Your task to perform on an android device: open app "Move to iOS" (install if not already installed) Image 0: 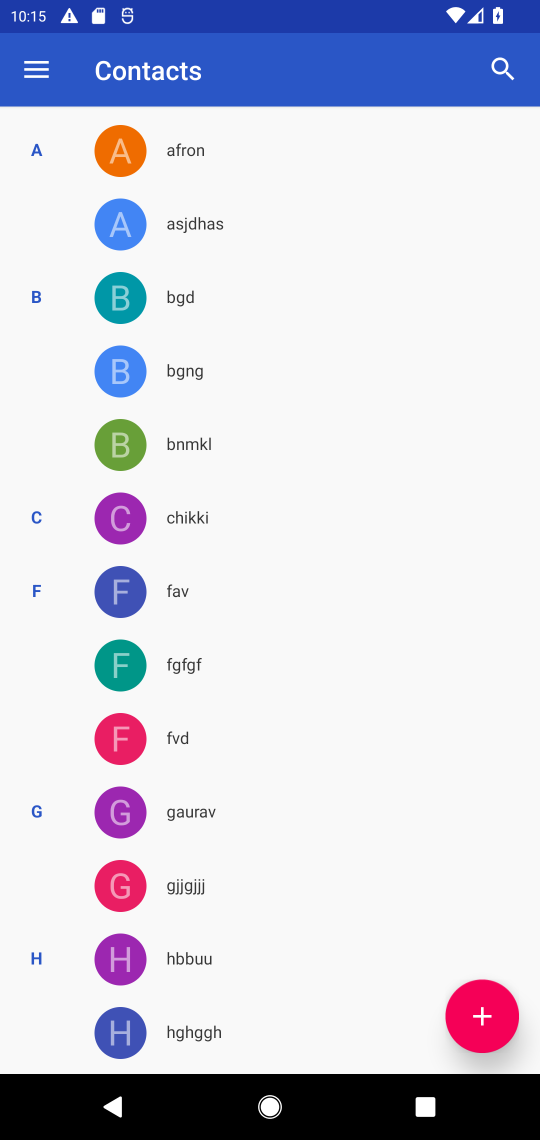
Step 0: press home button
Your task to perform on an android device: open app "Move to iOS" (install if not already installed) Image 1: 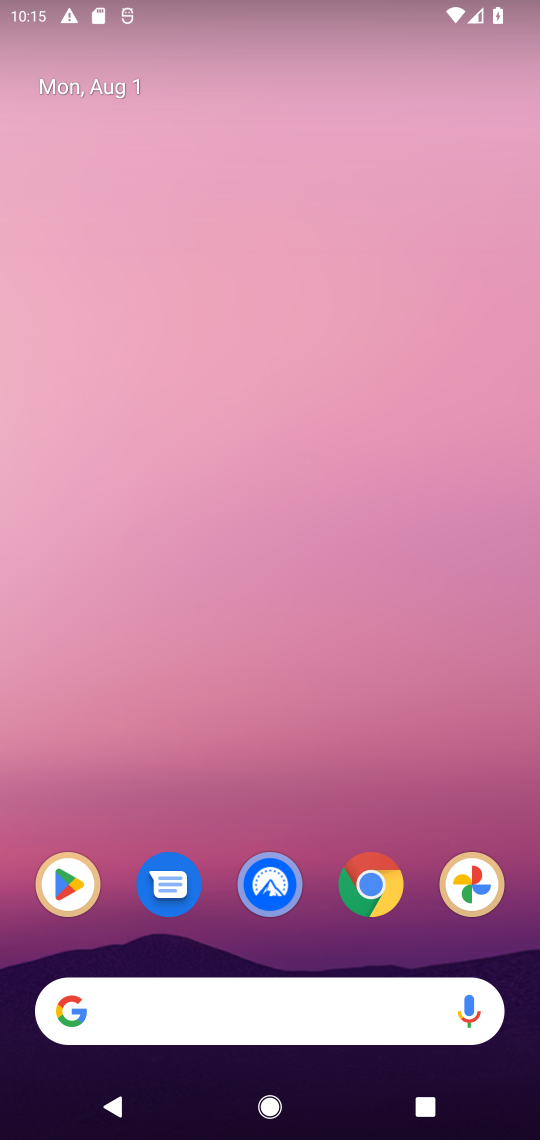
Step 1: click (63, 875)
Your task to perform on an android device: open app "Move to iOS" (install if not already installed) Image 2: 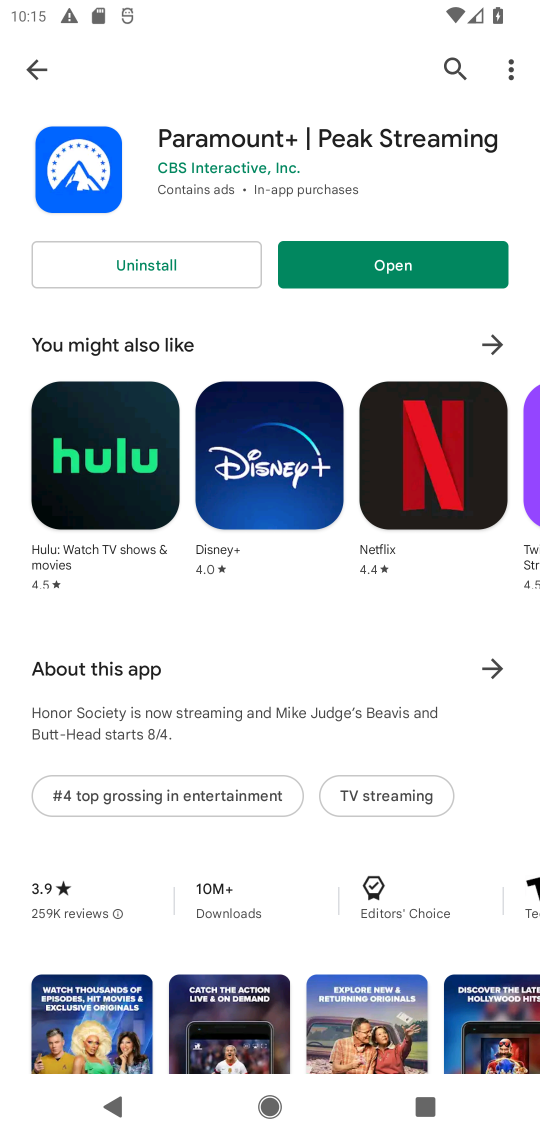
Step 2: click (454, 73)
Your task to perform on an android device: open app "Move to iOS" (install if not already installed) Image 3: 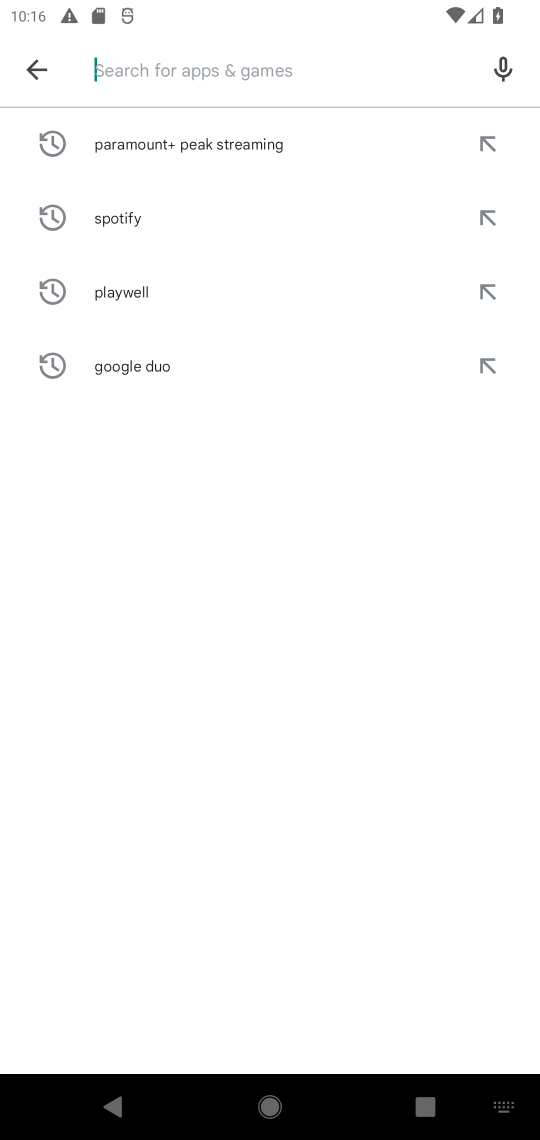
Step 3: type "move to ios"
Your task to perform on an android device: open app "Move to iOS" (install if not already installed) Image 4: 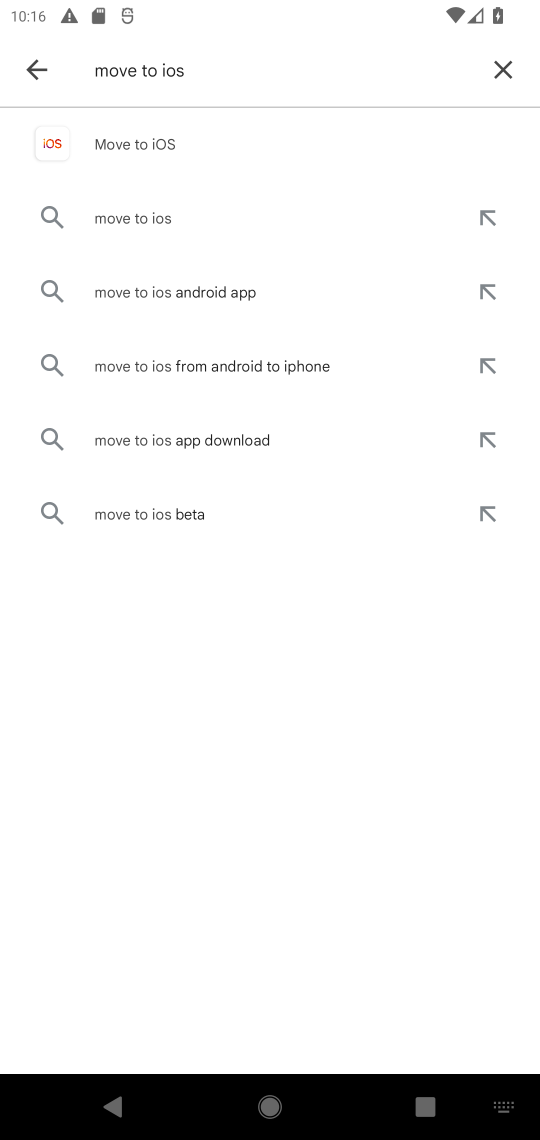
Step 4: click (129, 137)
Your task to perform on an android device: open app "Move to iOS" (install if not already installed) Image 5: 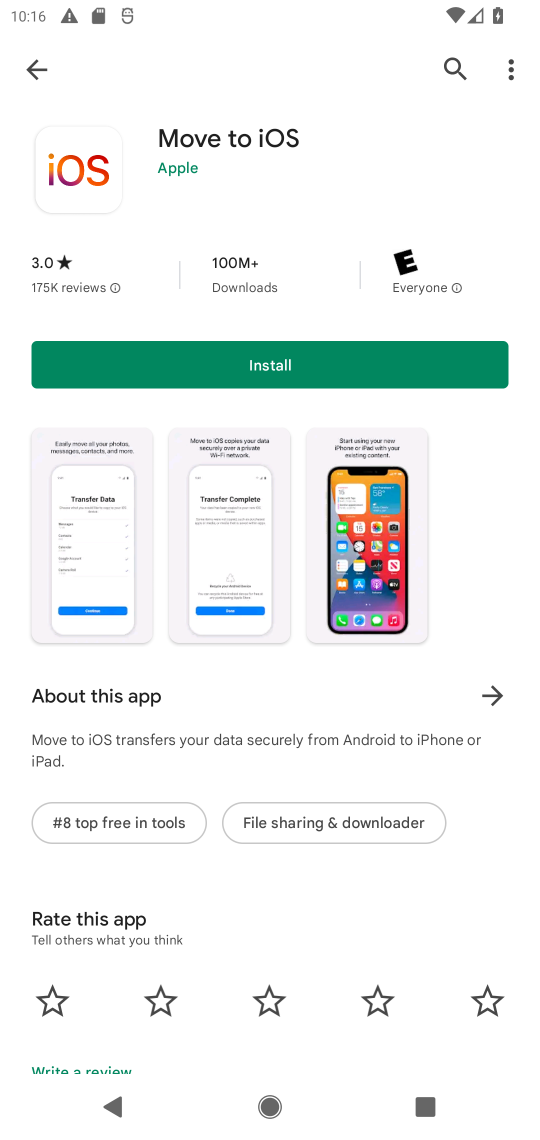
Step 5: click (306, 380)
Your task to perform on an android device: open app "Move to iOS" (install if not already installed) Image 6: 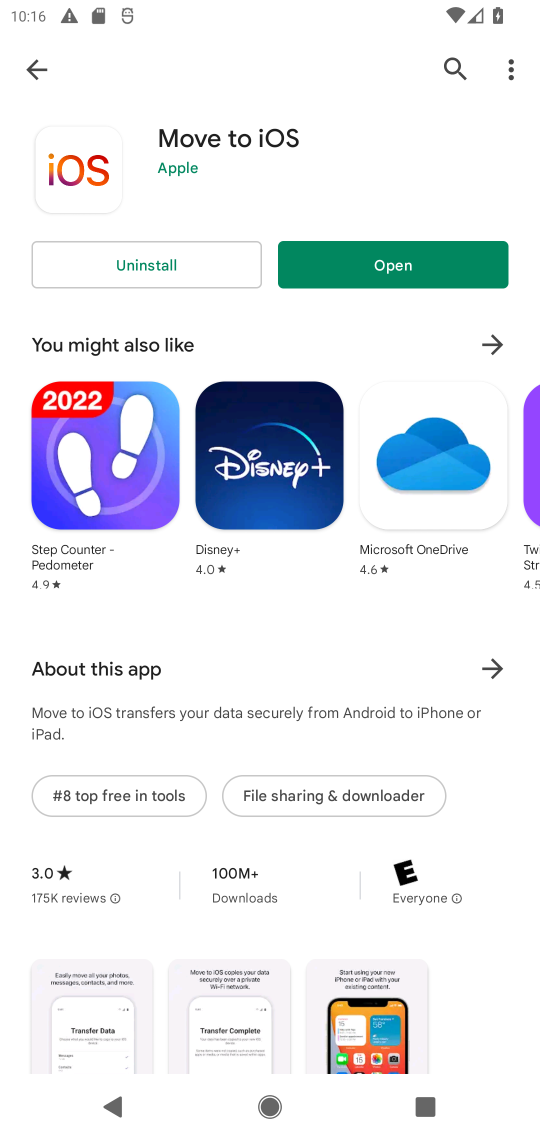
Step 6: click (385, 269)
Your task to perform on an android device: open app "Move to iOS" (install if not already installed) Image 7: 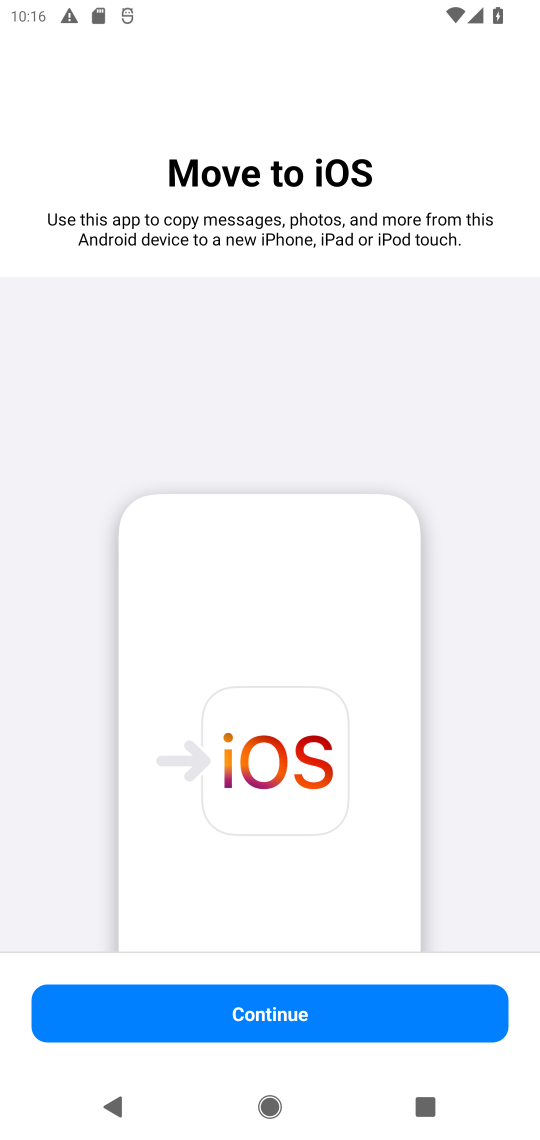
Step 7: task complete